Your task to perform on an android device: What's on my calendar tomorrow? Image 0: 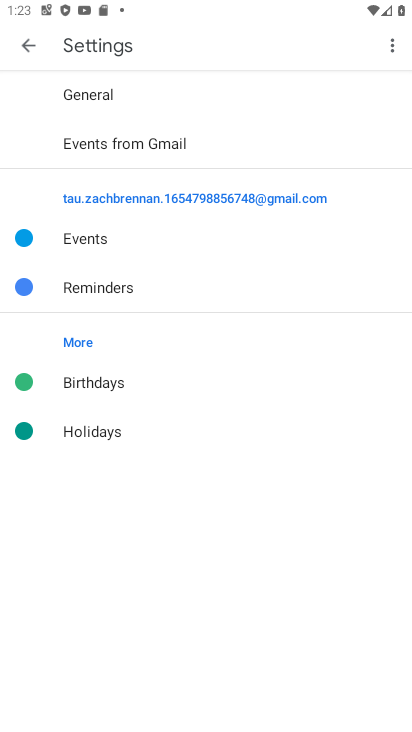
Step 0: press home button
Your task to perform on an android device: What's on my calendar tomorrow? Image 1: 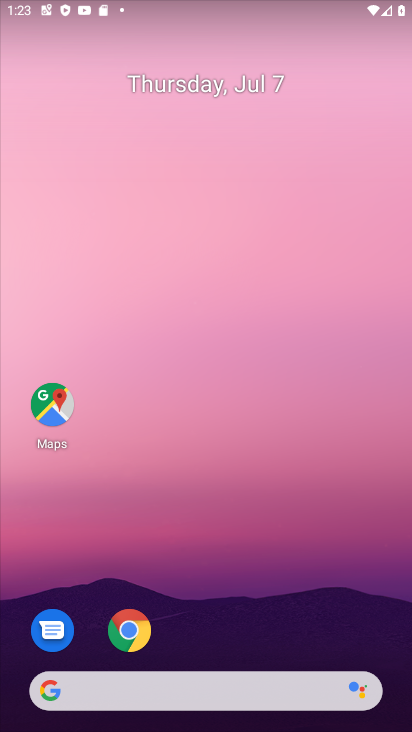
Step 1: drag from (301, 596) to (218, 142)
Your task to perform on an android device: What's on my calendar tomorrow? Image 2: 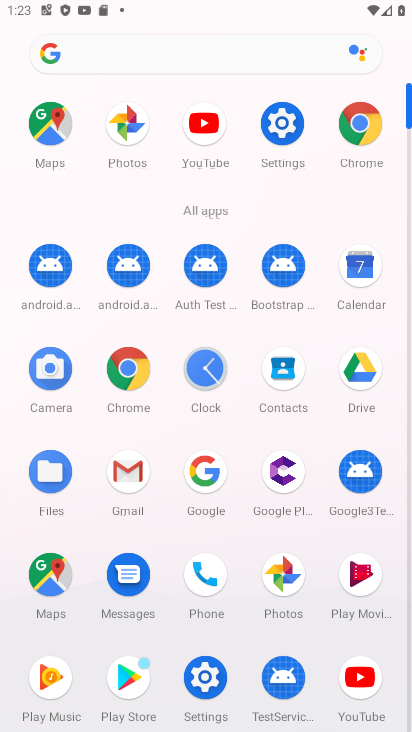
Step 2: click (368, 268)
Your task to perform on an android device: What's on my calendar tomorrow? Image 3: 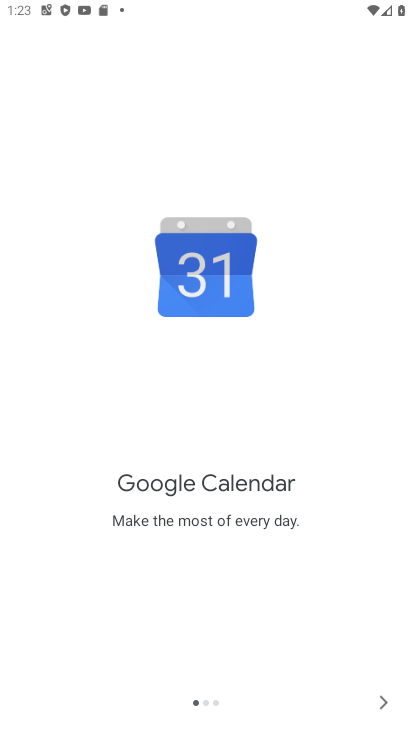
Step 3: click (386, 706)
Your task to perform on an android device: What's on my calendar tomorrow? Image 4: 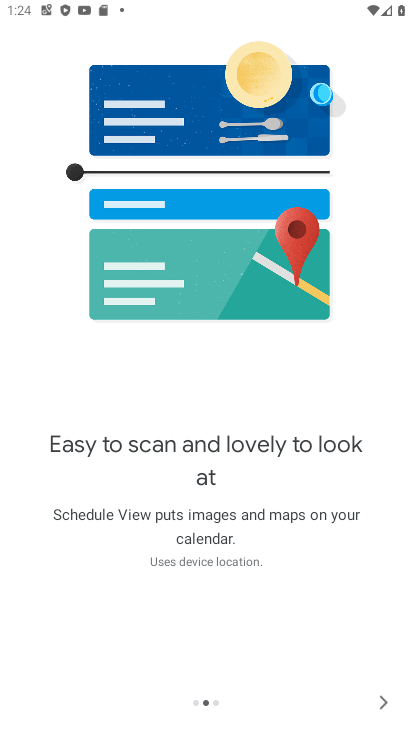
Step 4: click (381, 703)
Your task to perform on an android device: What's on my calendar tomorrow? Image 5: 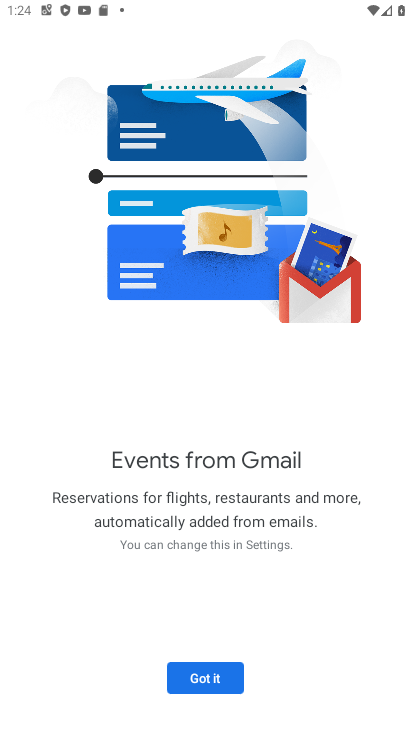
Step 5: click (221, 686)
Your task to perform on an android device: What's on my calendar tomorrow? Image 6: 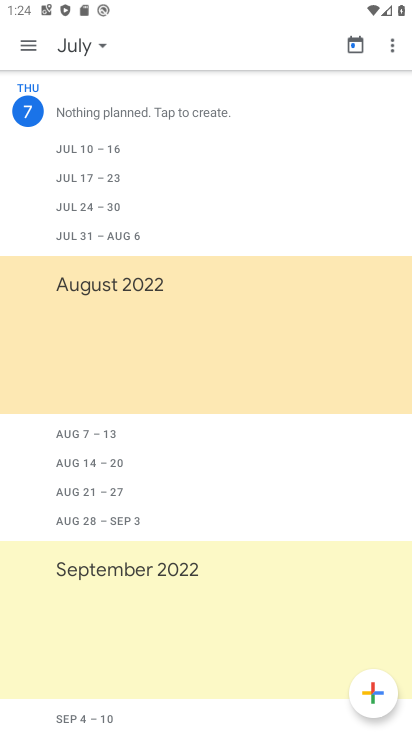
Step 6: click (29, 45)
Your task to perform on an android device: What's on my calendar tomorrow? Image 7: 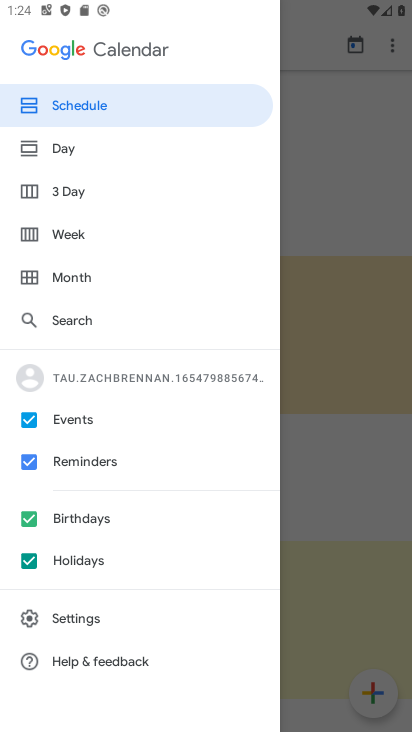
Step 7: click (78, 154)
Your task to perform on an android device: What's on my calendar tomorrow? Image 8: 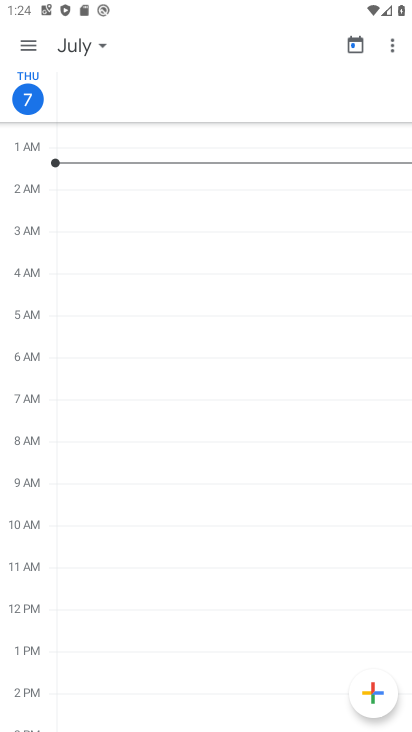
Step 8: task complete